Your task to perform on an android device: set the stopwatch Image 0: 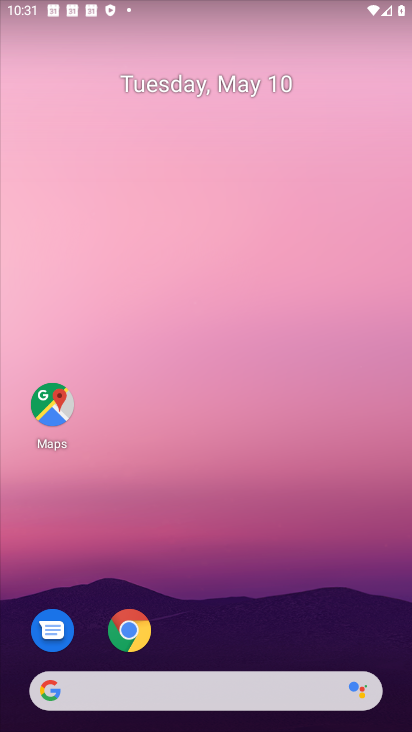
Step 0: drag from (214, 721) to (242, 159)
Your task to perform on an android device: set the stopwatch Image 1: 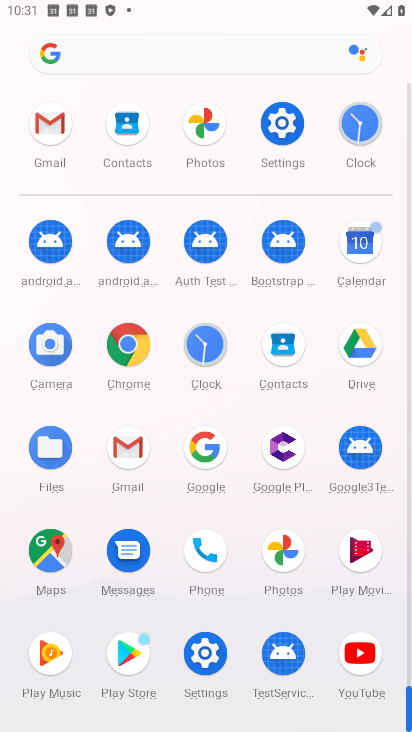
Step 1: click (348, 132)
Your task to perform on an android device: set the stopwatch Image 2: 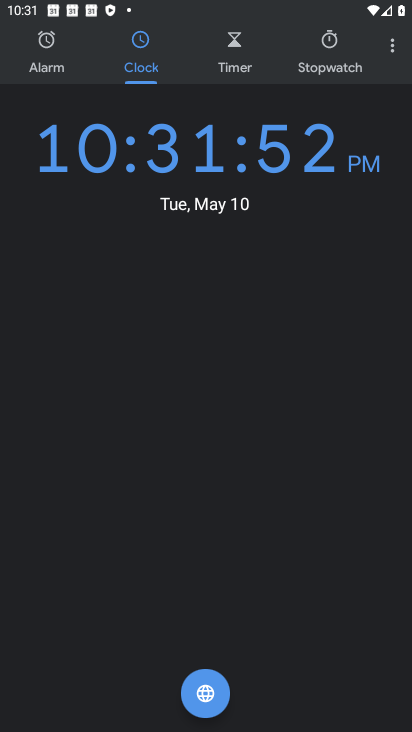
Step 2: click (334, 52)
Your task to perform on an android device: set the stopwatch Image 3: 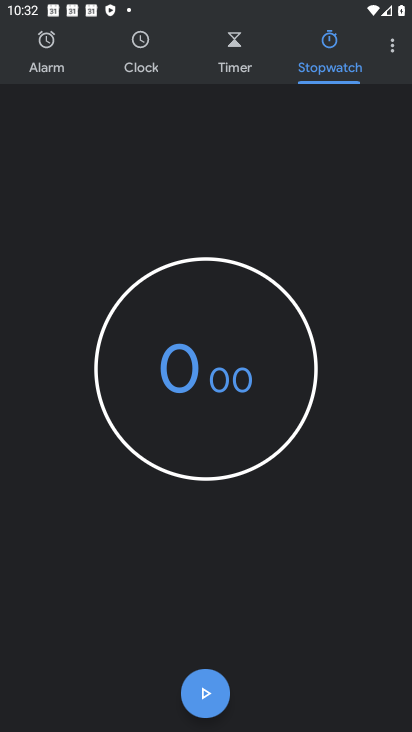
Step 3: task complete